Your task to perform on an android device: Open privacy settings Image 0: 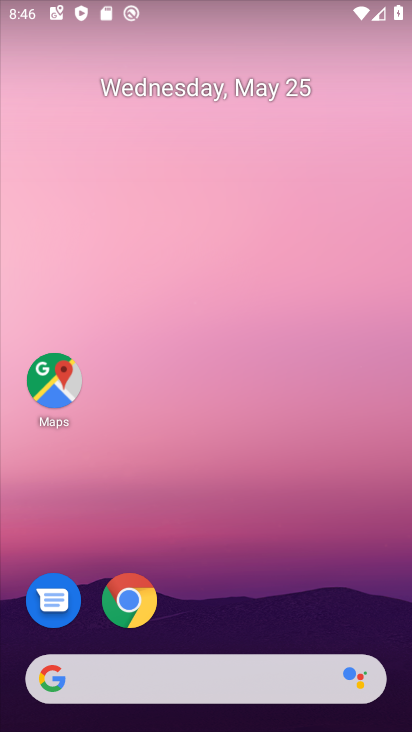
Step 0: drag from (250, 609) to (208, 23)
Your task to perform on an android device: Open privacy settings Image 1: 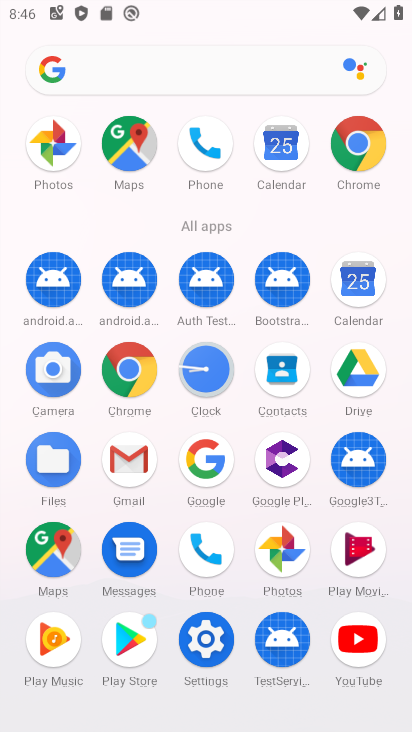
Step 1: drag from (12, 635) to (23, 231)
Your task to perform on an android device: Open privacy settings Image 2: 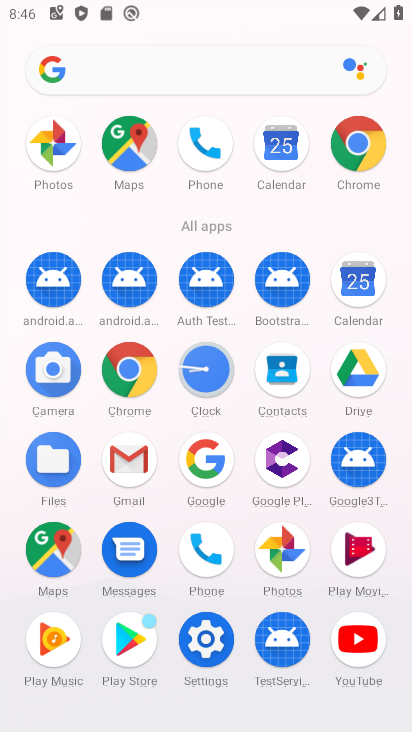
Step 2: click (204, 636)
Your task to perform on an android device: Open privacy settings Image 3: 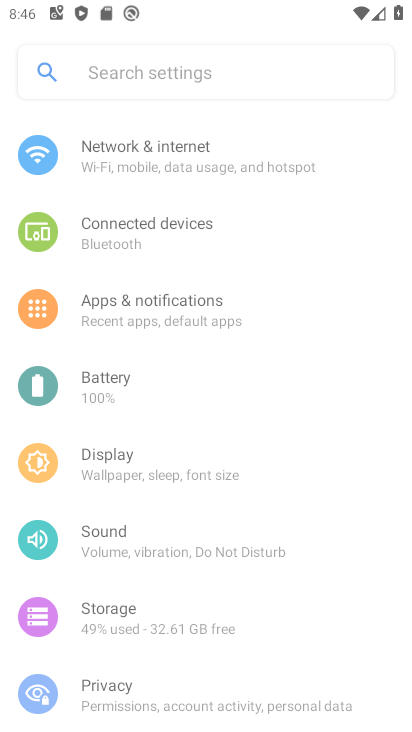
Step 3: press back button
Your task to perform on an android device: Open privacy settings Image 4: 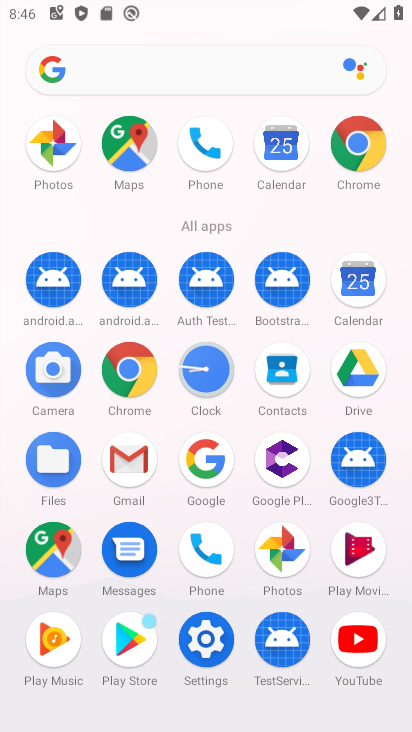
Step 4: click (357, 136)
Your task to perform on an android device: Open privacy settings Image 5: 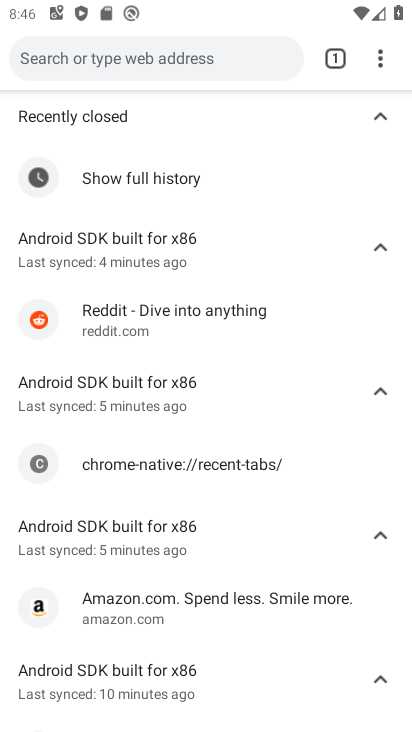
Step 5: drag from (369, 56) to (176, 539)
Your task to perform on an android device: Open privacy settings Image 6: 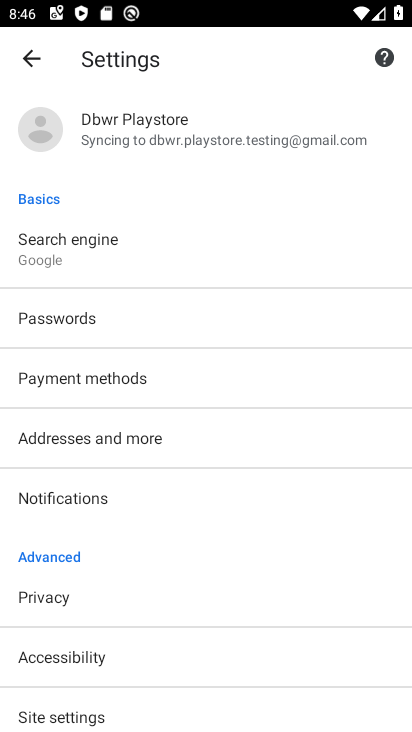
Step 6: click (75, 575)
Your task to perform on an android device: Open privacy settings Image 7: 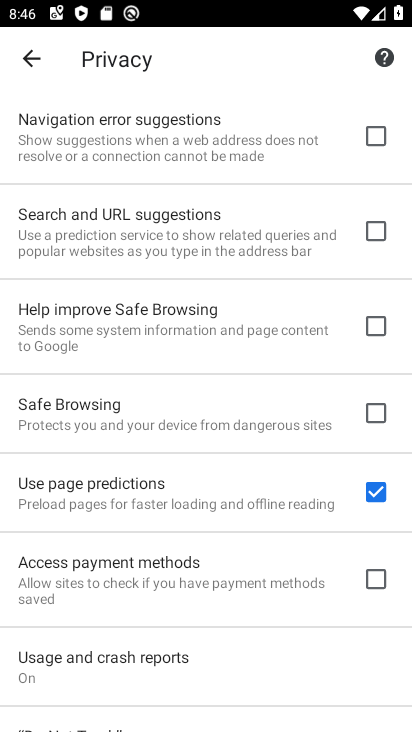
Step 7: task complete